Your task to perform on an android device: Is it going to rain tomorrow? Image 0: 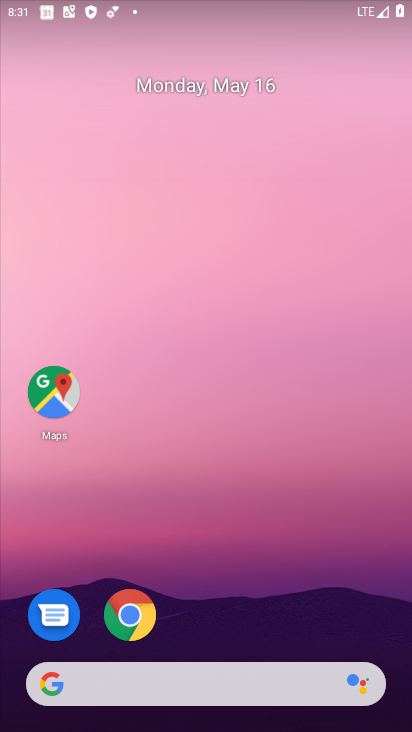
Step 0: drag from (243, 677) to (267, 459)
Your task to perform on an android device: Is it going to rain tomorrow? Image 1: 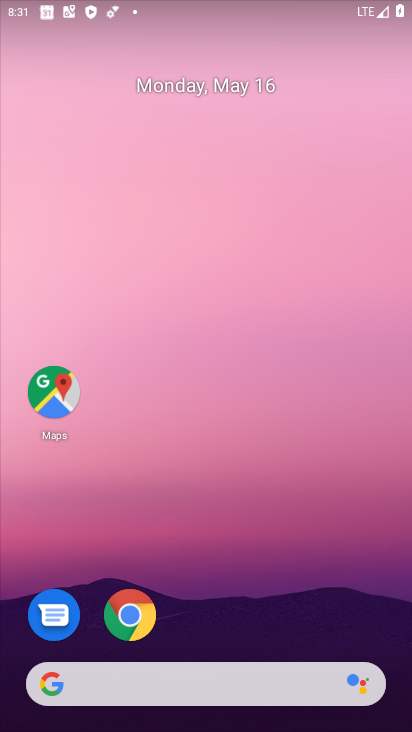
Step 1: drag from (230, 608) to (248, 293)
Your task to perform on an android device: Is it going to rain tomorrow? Image 2: 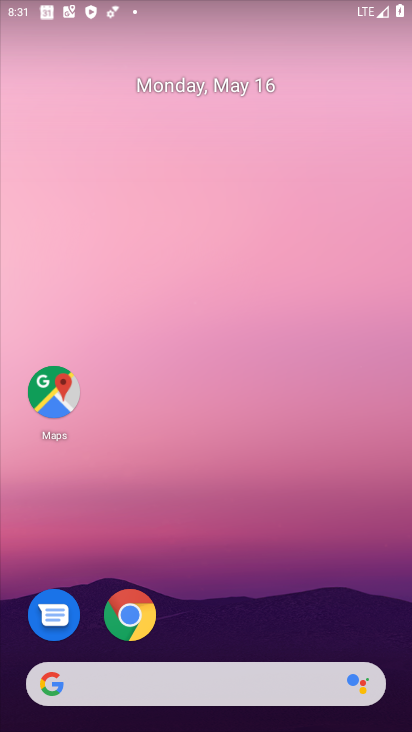
Step 2: drag from (235, 515) to (290, 99)
Your task to perform on an android device: Is it going to rain tomorrow? Image 3: 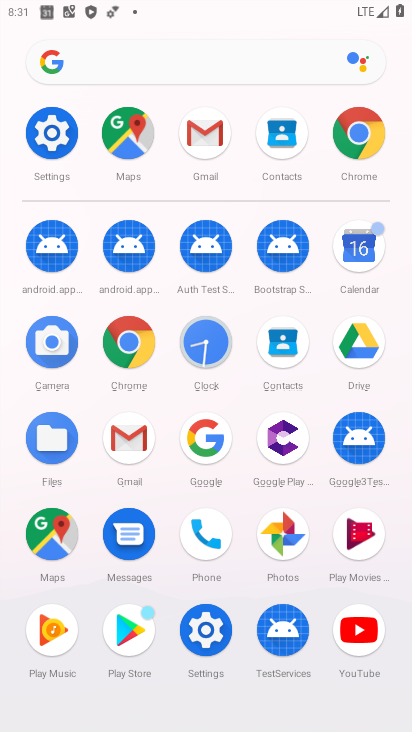
Step 3: click (201, 452)
Your task to perform on an android device: Is it going to rain tomorrow? Image 4: 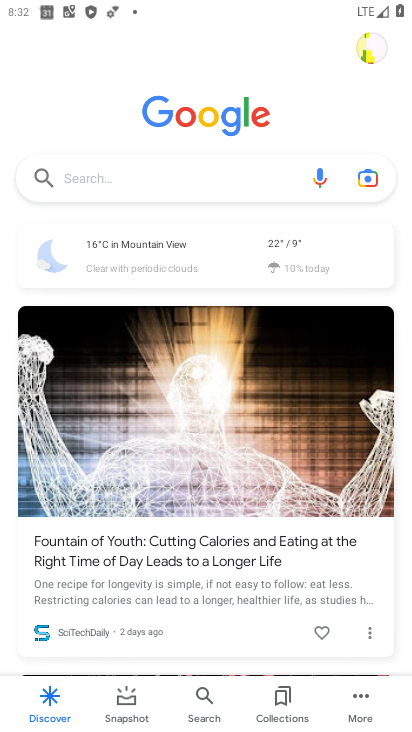
Step 4: click (218, 177)
Your task to perform on an android device: Is it going to rain tomorrow? Image 5: 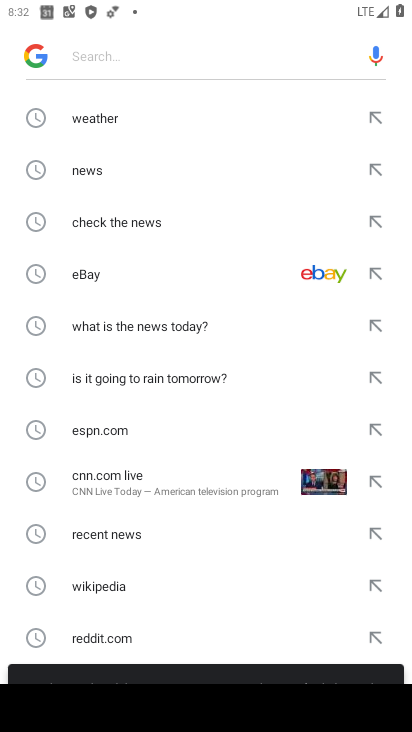
Step 5: click (203, 101)
Your task to perform on an android device: Is it going to rain tomorrow? Image 6: 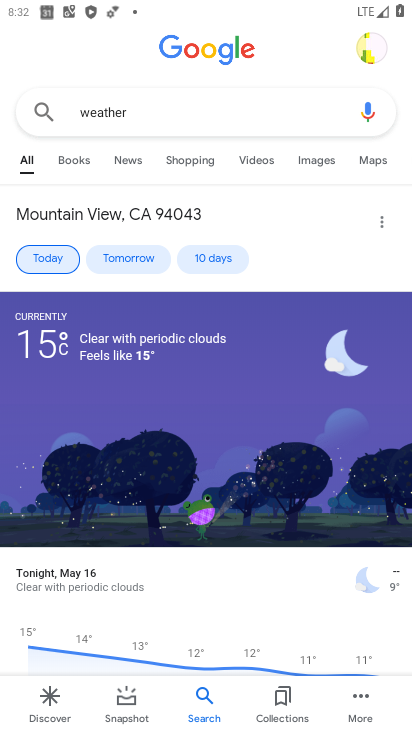
Step 6: click (122, 254)
Your task to perform on an android device: Is it going to rain tomorrow? Image 7: 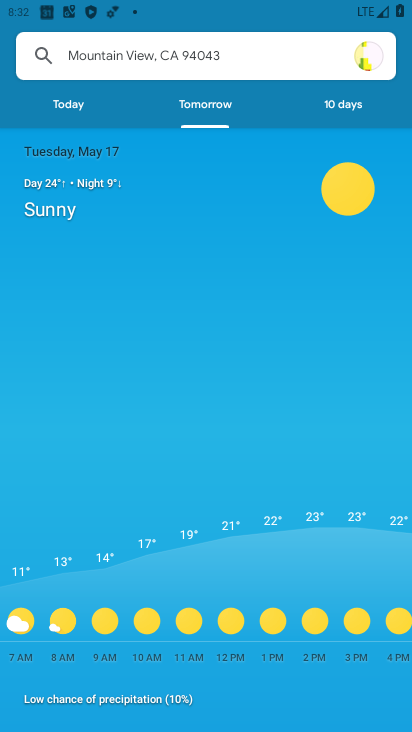
Step 7: task complete